Your task to perform on an android device: open chrome privacy settings Image 0: 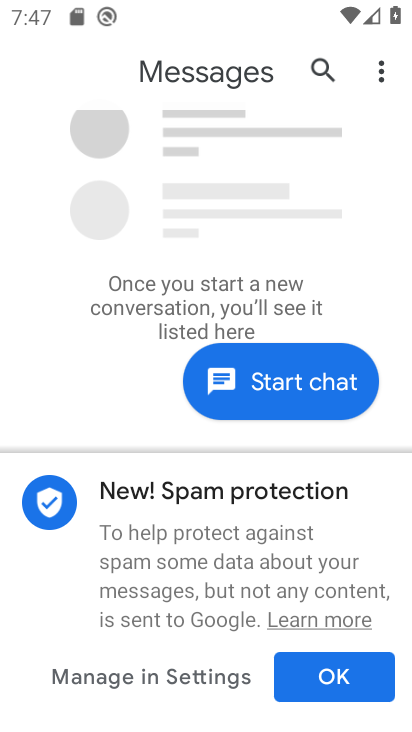
Step 0: press home button
Your task to perform on an android device: open chrome privacy settings Image 1: 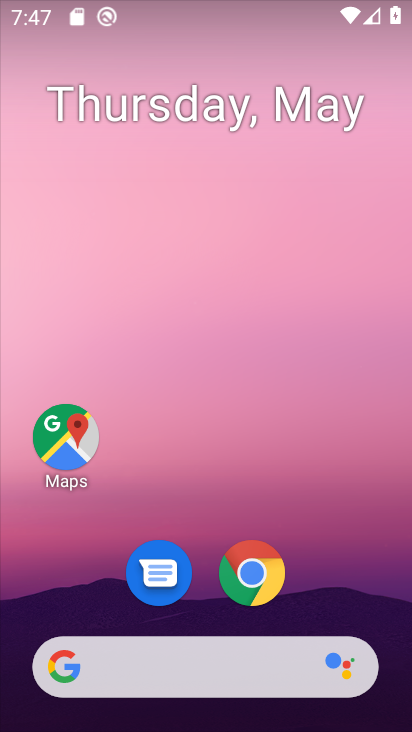
Step 1: click (256, 568)
Your task to perform on an android device: open chrome privacy settings Image 2: 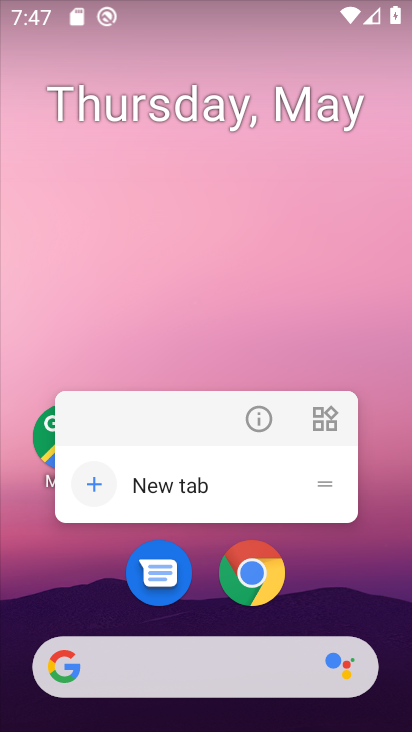
Step 2: click (237, 575)
Your task to perform on an android device: open chrome privacy settings Image 3: 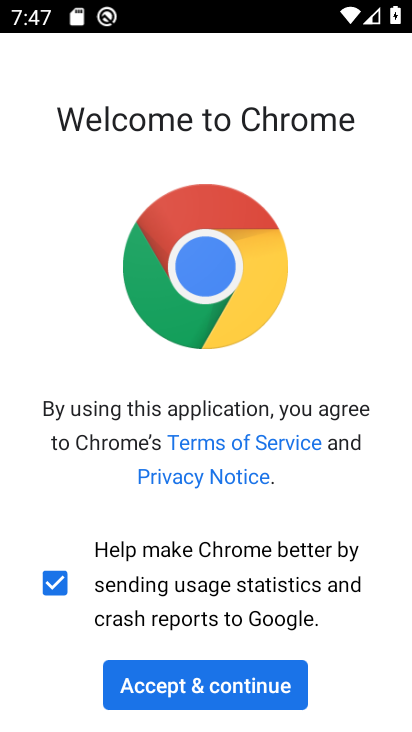
Step 3: click (225, 677)
Your task to perform on an android device: open chrome privacy settings Image 4: 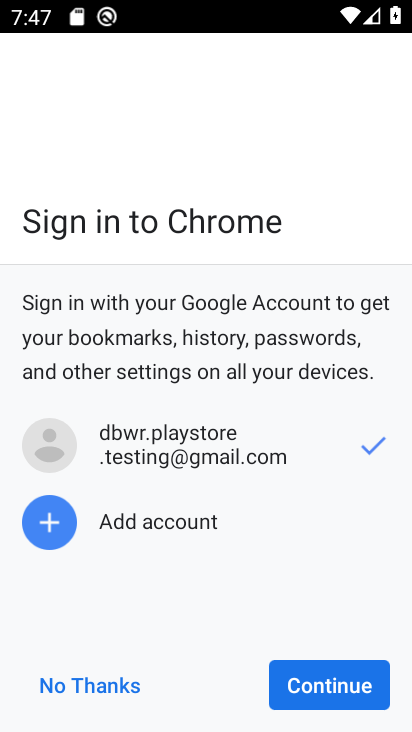
Step 4: click (321, 670)
Your task to perform on an android device: open chrome privacy settings Image 5: 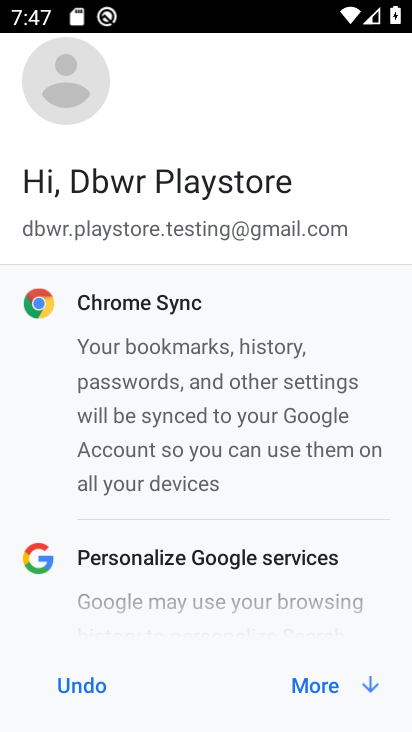
Step 5: click (321, 680)
Your task to perform on an android device: open chrome privacy settings Image 6: 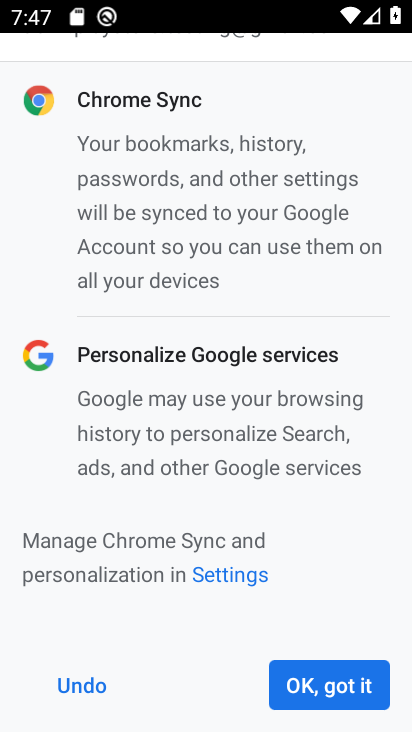
Step 6: click (320, 669)
Your task to perform on an android device: open chrome privacy settings Image 7: 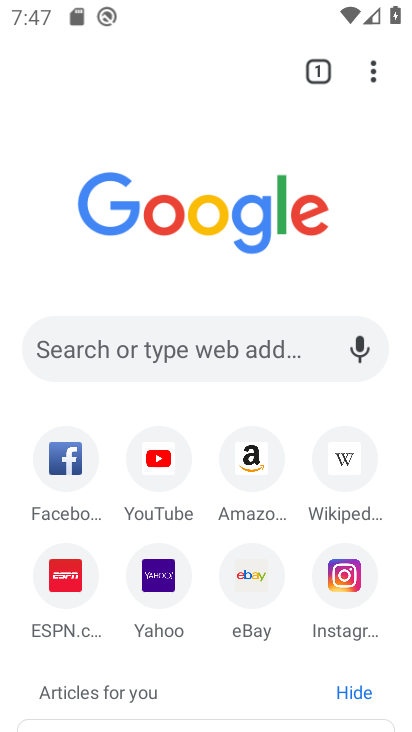
Step 7: click (375, 75)
Your task to perform on an android device: open chrome privacy settings Image 8: 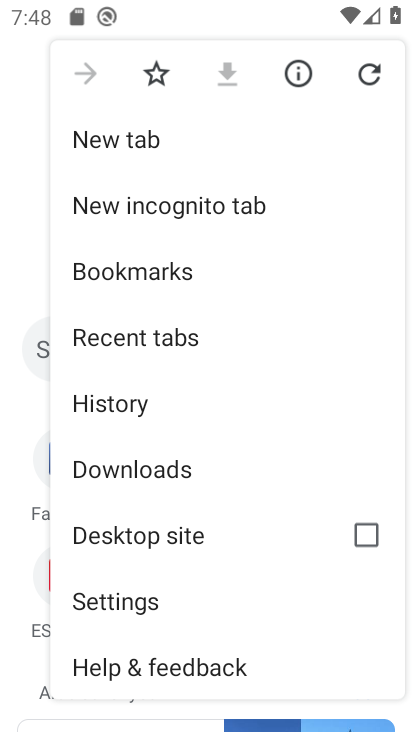
Step 8: click (114, 591)
Your task to perform on an android device: open chrome privacy settings Image 9: 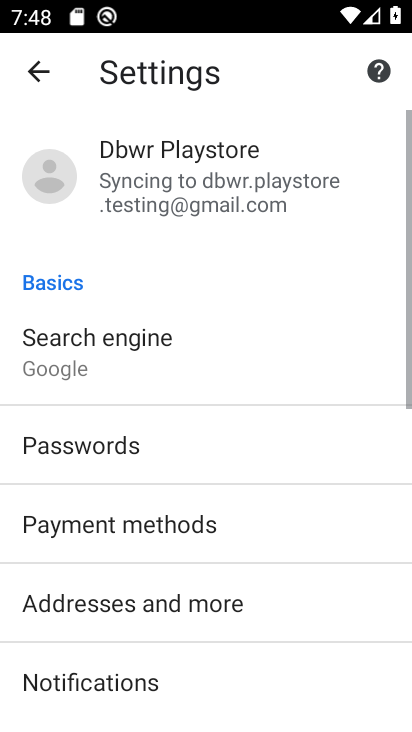
Step 9: drag from (121, 583) to (105, 20)
Your task to perform on an android device: open chrome privacy settings Image 10: 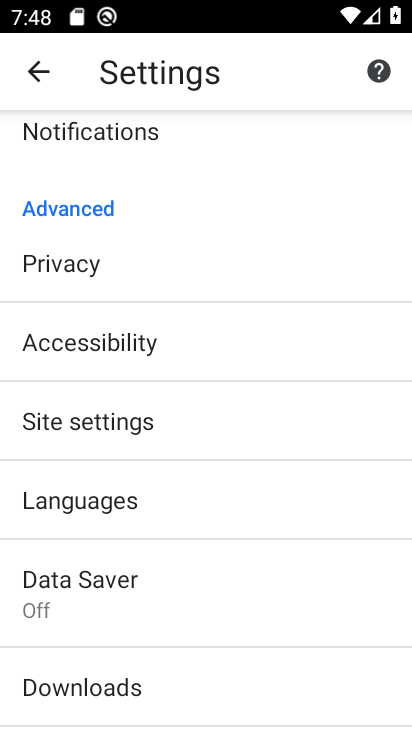
Step 10: click (75, 252)
Your task to perform on an android device: open chrome privacy settings Image 11: 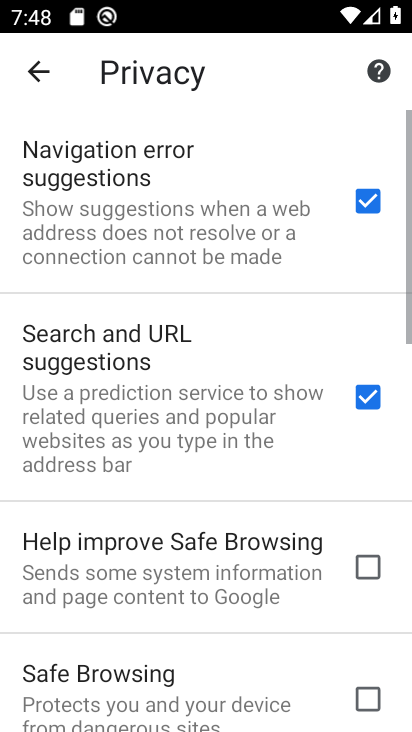
Step 11: task complete